Your task to perform on an android device: add a contact Image 0: 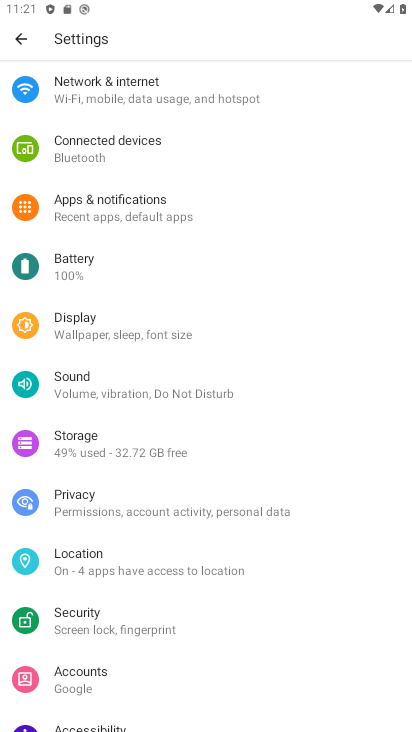
Step 0: press home button
Your task to perform on an android device: add a contact Image 1: 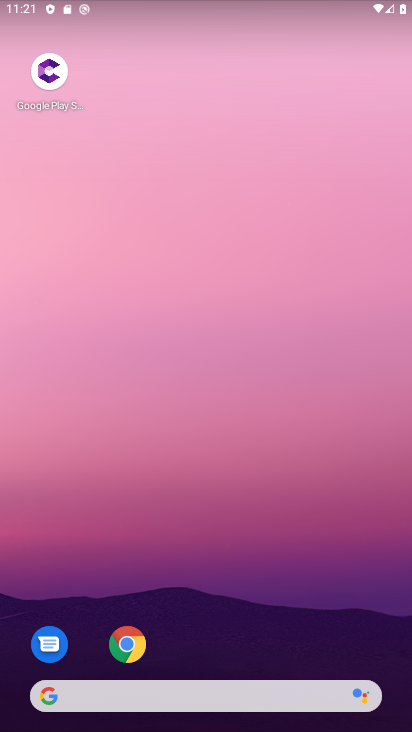
Step 1: drag from (268, 602) to (260, 171)
Your task to perform on an android device: add a contact Image 2: 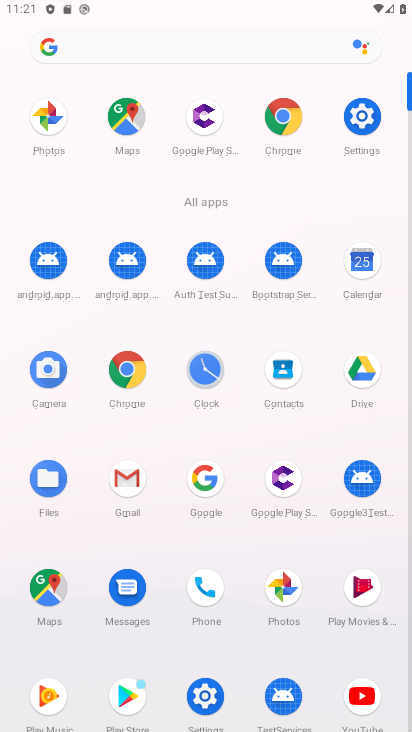
Step 2: click (198, 702)
Your task to perform on an android device: add a contact Image 3: 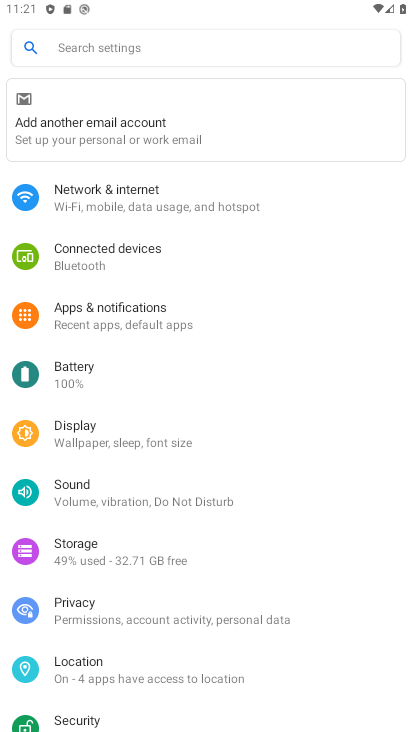
Step 3: press home button
Your task to perform on an android device: add a contact Image 4: 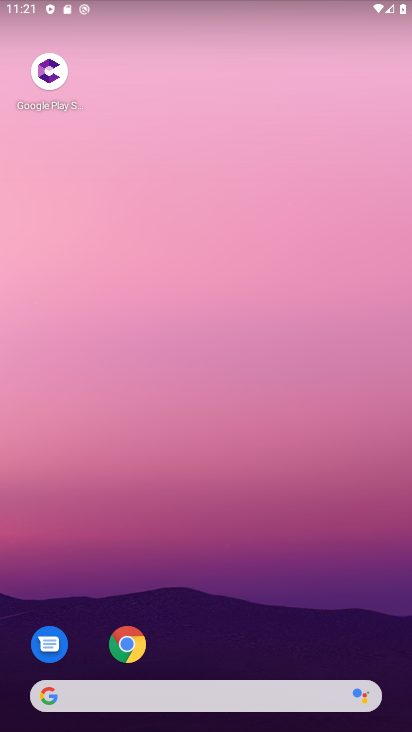
Step 4: drag from (252, 558) to (243, 84)
Your task to perform on an android device: add a contact Image 5: 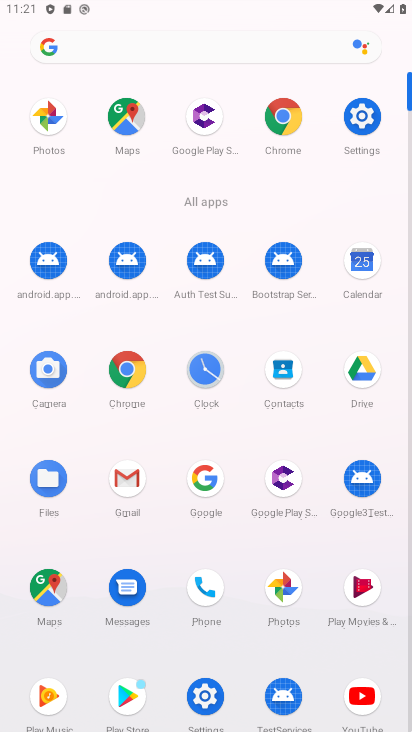
Step 5: click (277, 373)
Your task to perform on an android device: add a contact Image 6: 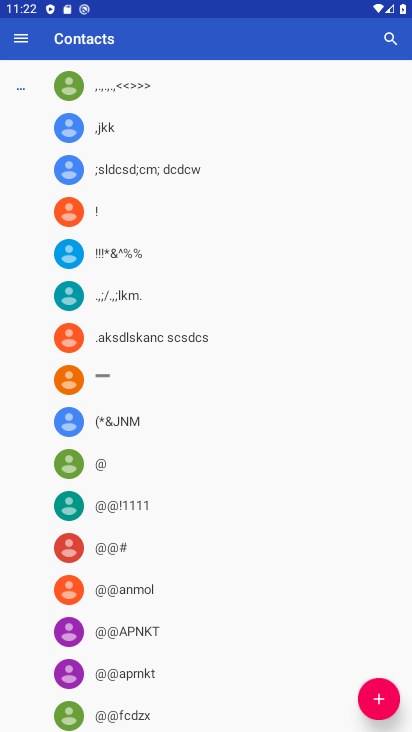
Step 6: click (386, 689)
Your task to perform on an android device: add a contact Image 7: 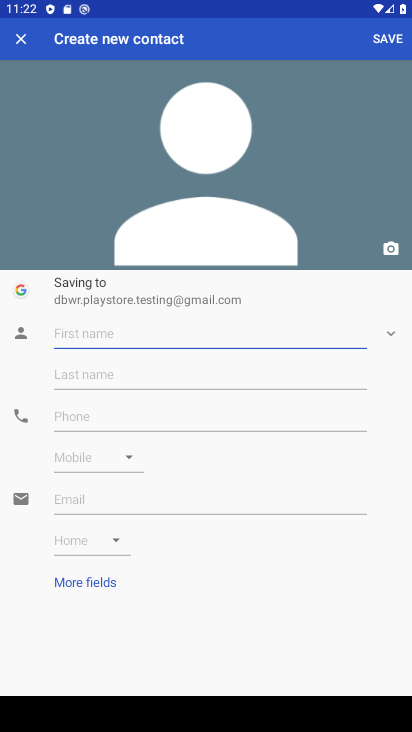
Step 7: type "fsdf"
Your task to perform on an android device: add a contact Image 8: 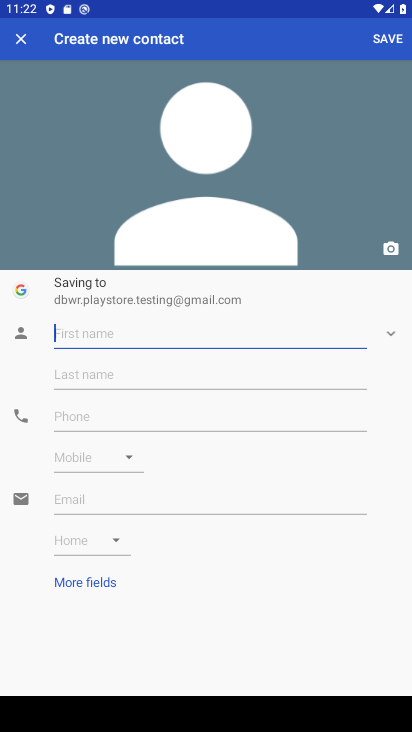
Step 8: click (155, 419)
Your task to perform on an android device: add a contact Image 9: 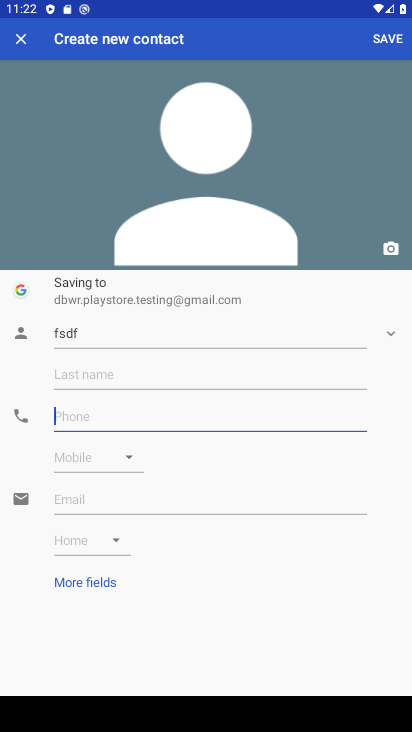
Step 9: type "5454454545"
Your task to perform on an android device: add a contact Image 10: 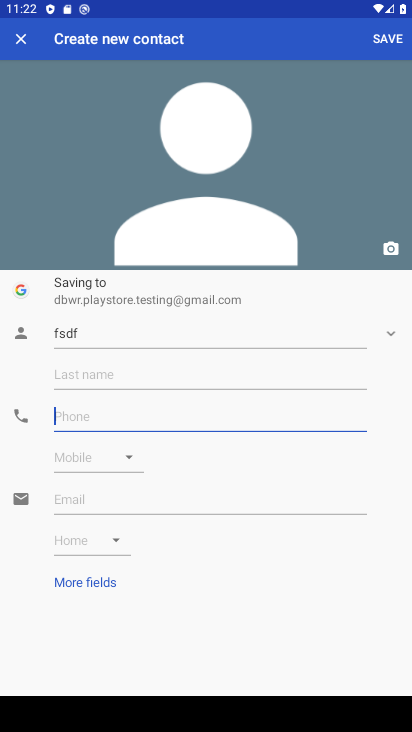
Step 10: click (387, 41)
Your task to perform on an android device: add a contact Image 11: 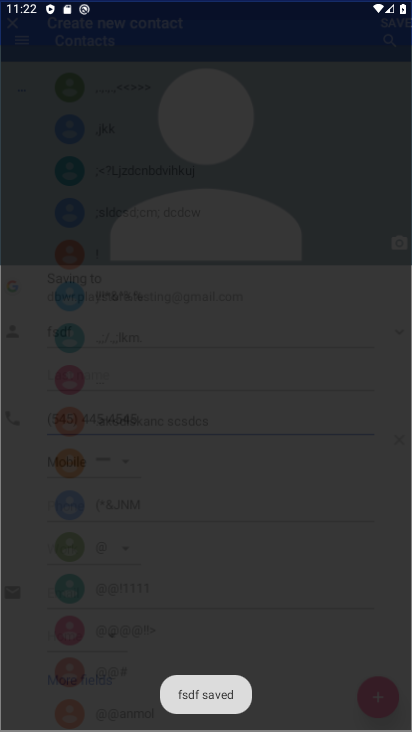
Step 11: task complete